Your task to perform on an android device: Open internet settings Image 0: 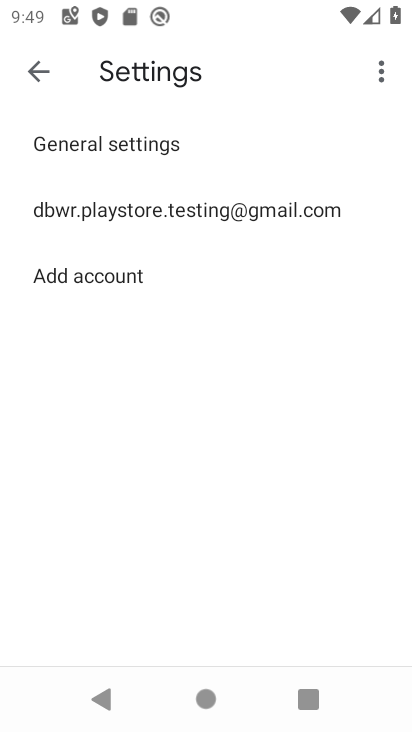
Step 0: press home button
Your task to perform on an android device: Open internet settings Image 1: 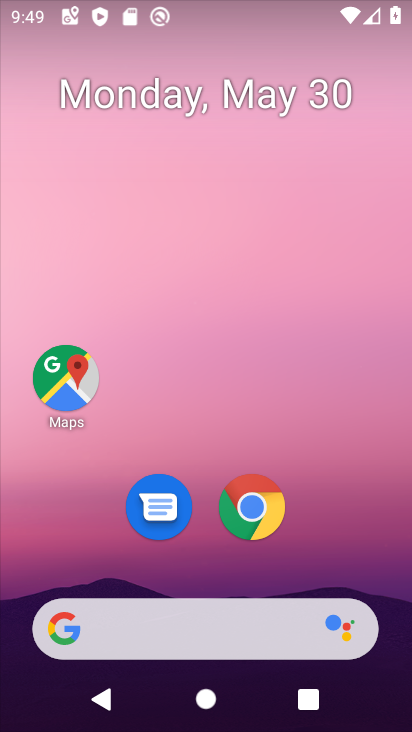
Step 1: drag from (171, 674) to (106, 98)
Your task to perform on an android device: Open internet settings Image 2: 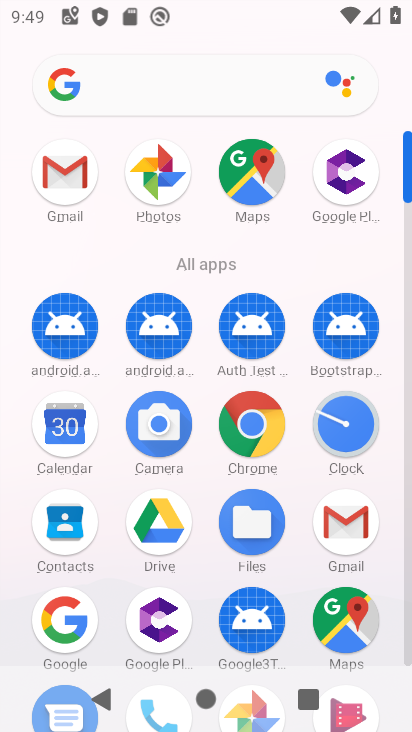
Step 2: drag from (203, 591) to (172, 314)
Your task to perform on an android device: Open internet settings Image 3: 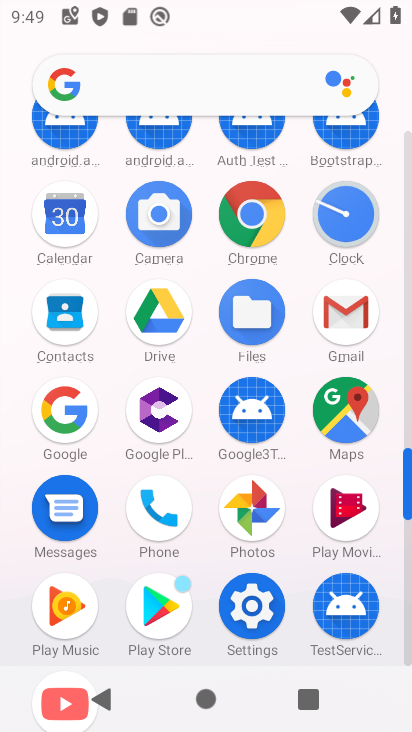
Step 3: click (241, 619)
Your task to perform on an android device: Open internet settings Image 4: 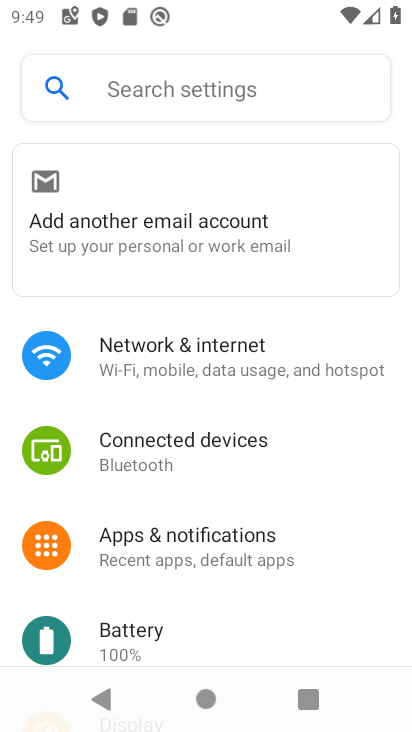
Step 4: click (214, 377)
Your task to perform on an android device: Open internet settings Image 5: 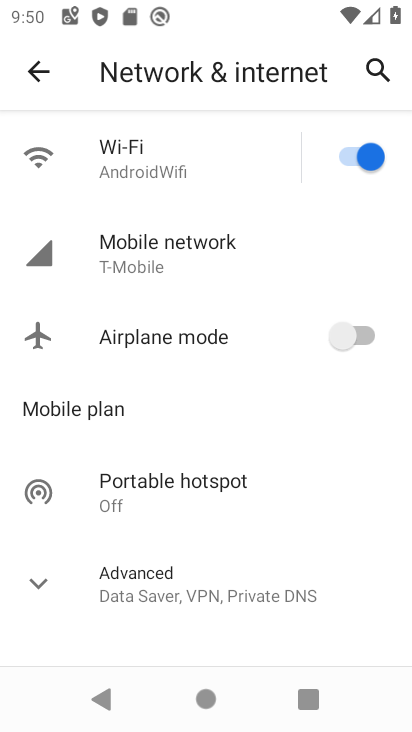
Step 5: task complete